Your task to perform on an android device: change timer sound Image 0: 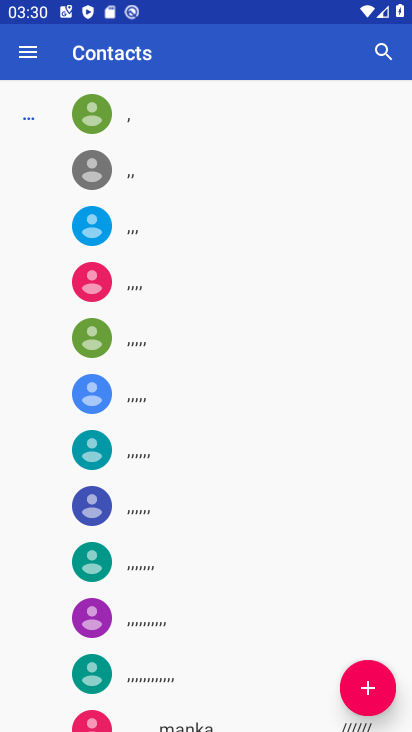
Step 0: press home button
Your task to perform on an android device: change timer sound Image 1: 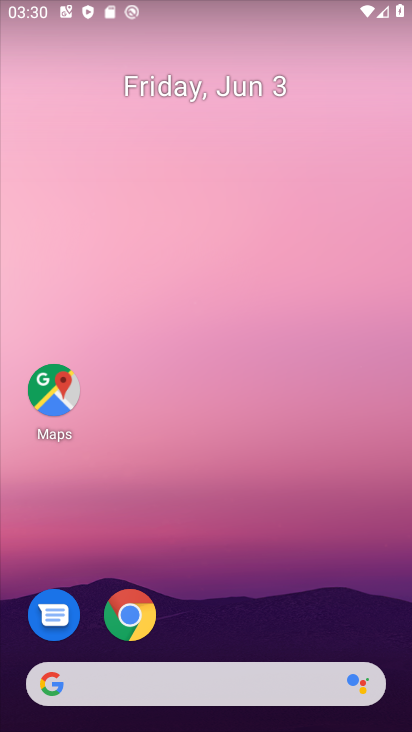
Step 1: drag from (220, 612) to (184, 134)
Your task to perform on an android device: change timer sound Image 2: 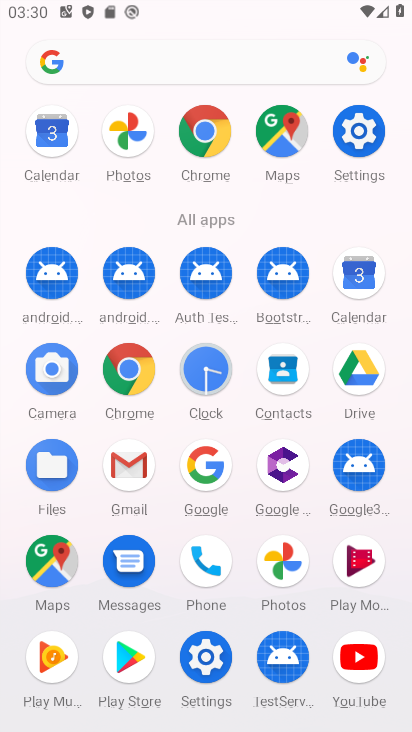
Step 2: click (212, 386)
Your task to perform on an android device: change timer sound Image 3: 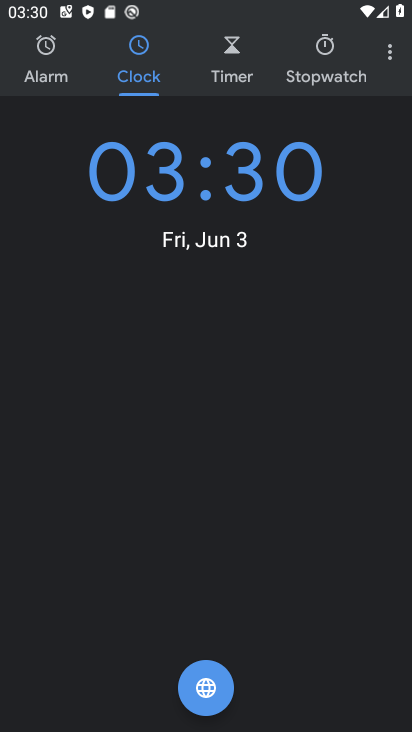
Step 3: click (386, 76)
Your task to perform on an android device: change timer sound Image 4: 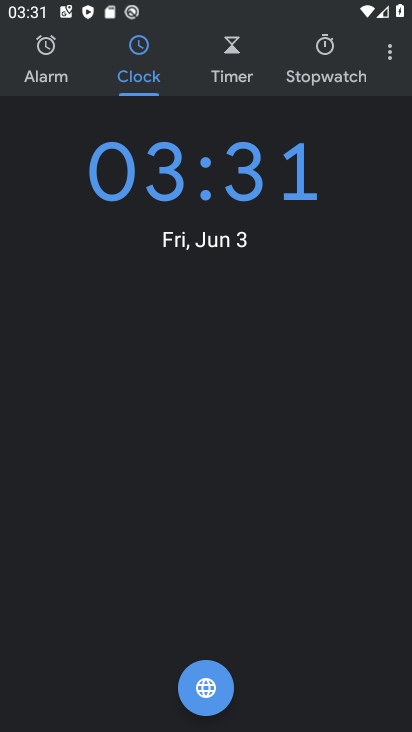
Step 4: click (392, 61)
Your task to perform on an android device: change timer sound Image 5: 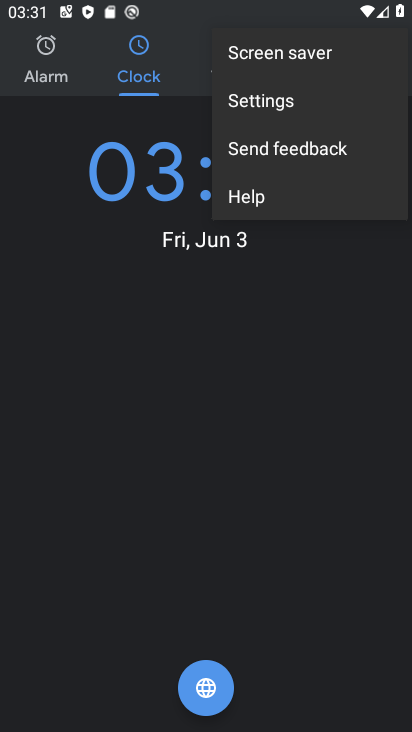
Step 5: click (327, 103)
Your task to perform on an android device: change timer sound Image 6: 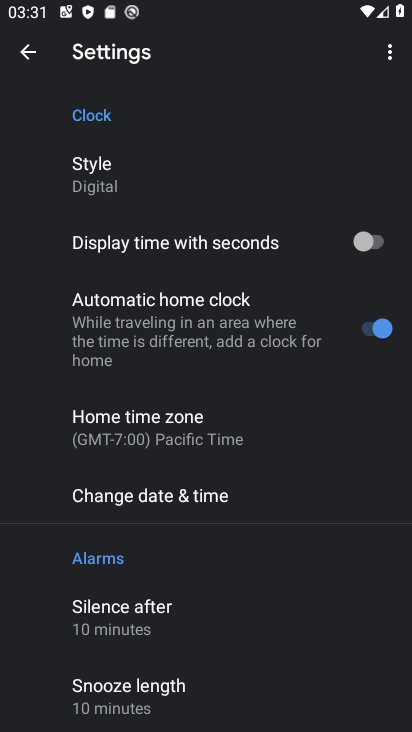
Step 6: drag from (260, 624) to (273, 336)
Your task to perform on an android device: change timer sound Image 7: 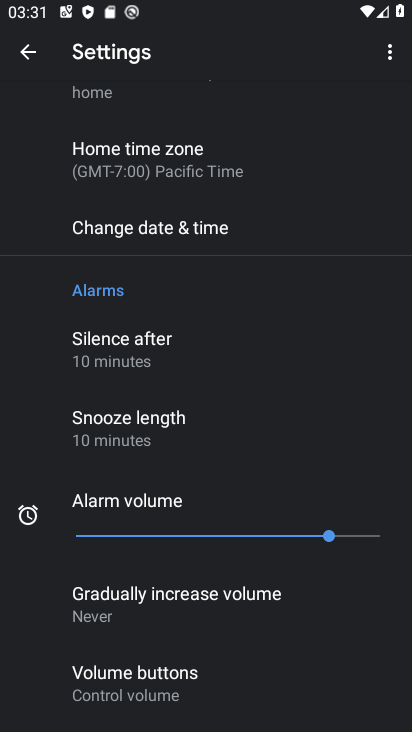
Step 7: drag from (283, 596) to (240, 254)
Your task to perform on an android device: change timer sound Image 8: 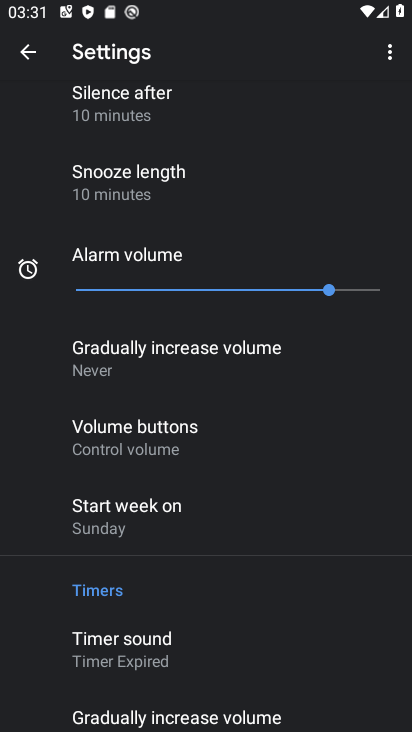
Step 8: click (207, 650)
Your task to perform on an android device: change timer sound Image 9: 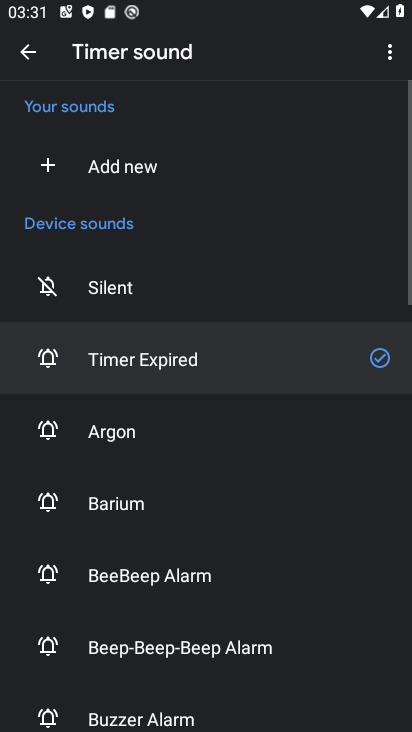
Step 9: click (197, 579)
Your task to perform on an android device: change timer sound Image 10: 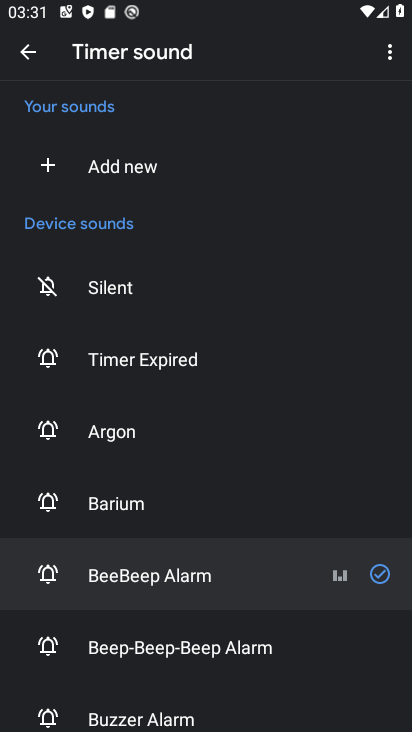
Step 10: task complete